Your task to perform on an android device: Add "logitech g pro" to the cart on costco, then select checkout. Image 0: 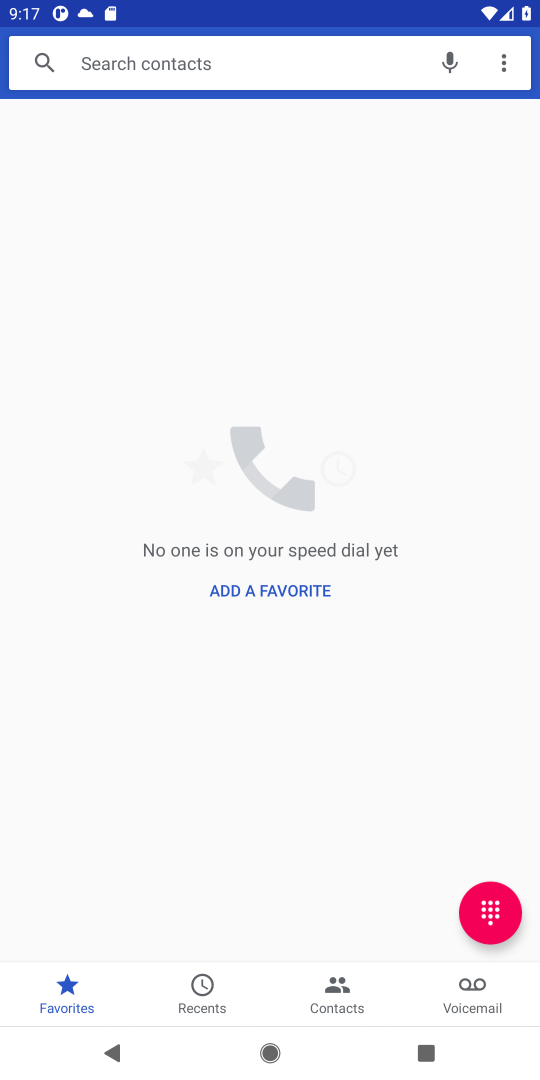
Step 0: press home button
Your task to perform on an android device: Add "logitech g pro" to the cart on costco, then select checkout. Image 1: 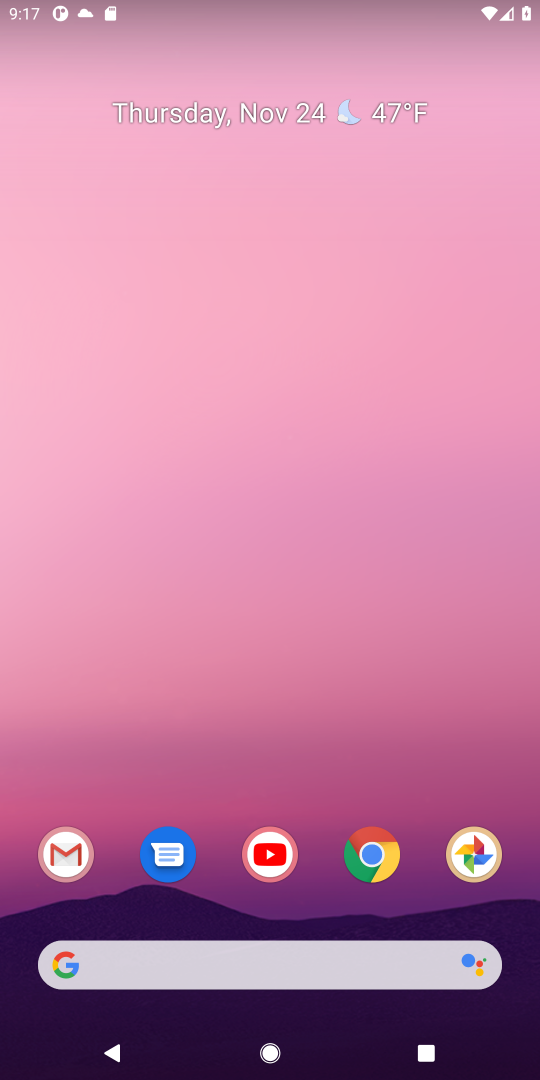
Step 1: click (373, 863)
Your task to perform on an android device: Add "logitech g pro" to the cart on costco, then select checkout. Image 2: 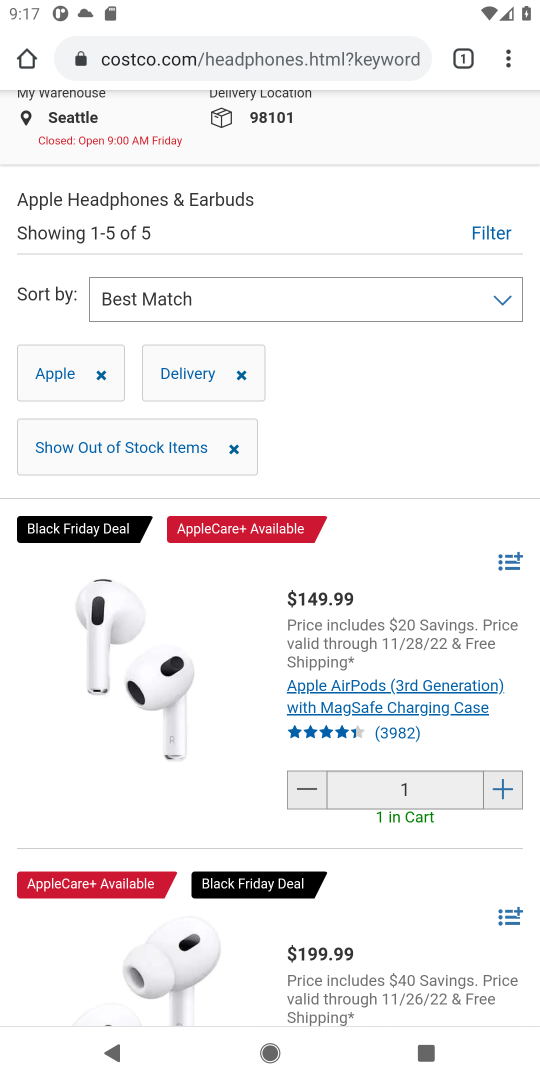
Step 2: drag from (374, 248) to (369, 608)
Your task to perform on an android device: Add "logitech g pro" to the cart on costco, then select checkout. Image 3: 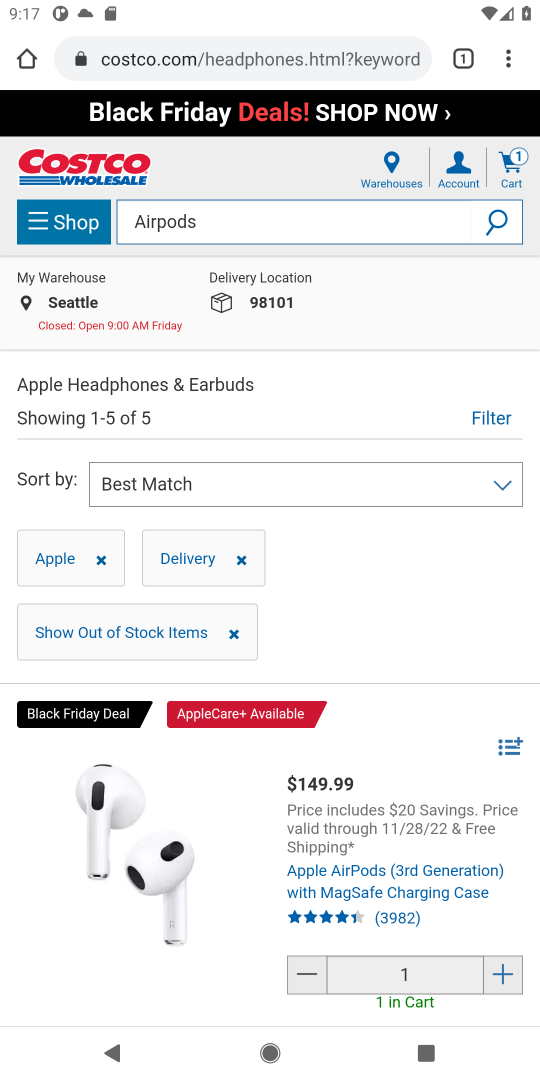
Step 3: click (229, 221)
Your task to perform on an android device: Add "logitech g pro" to the cart on costco, then select checkout. Image 4: 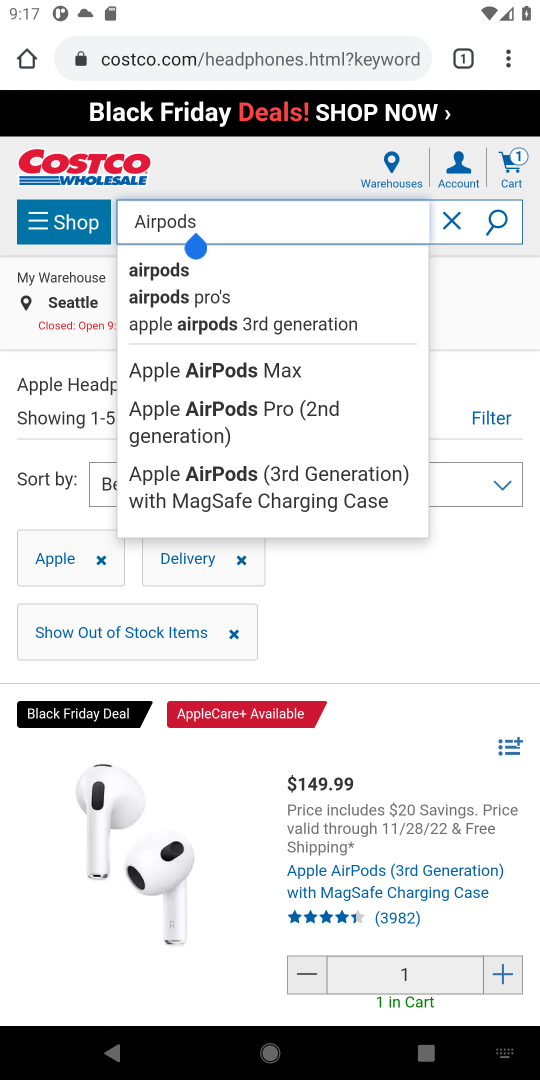
Step 4: click (458, 218)
Your task to perform on an android device: Add "logitech g pro" to the cart on costco, then select checkout. Image 5: 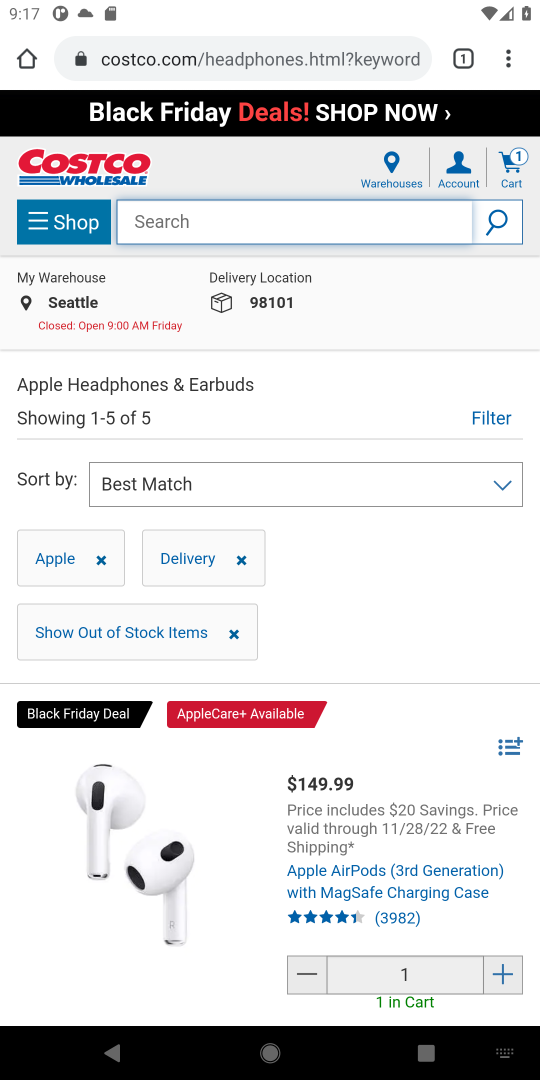
Step 5: type "logitech g pro"
Your task to perform on an android device: Add "logitech g pro" to the cart on costco, then select checkout. Image 6: 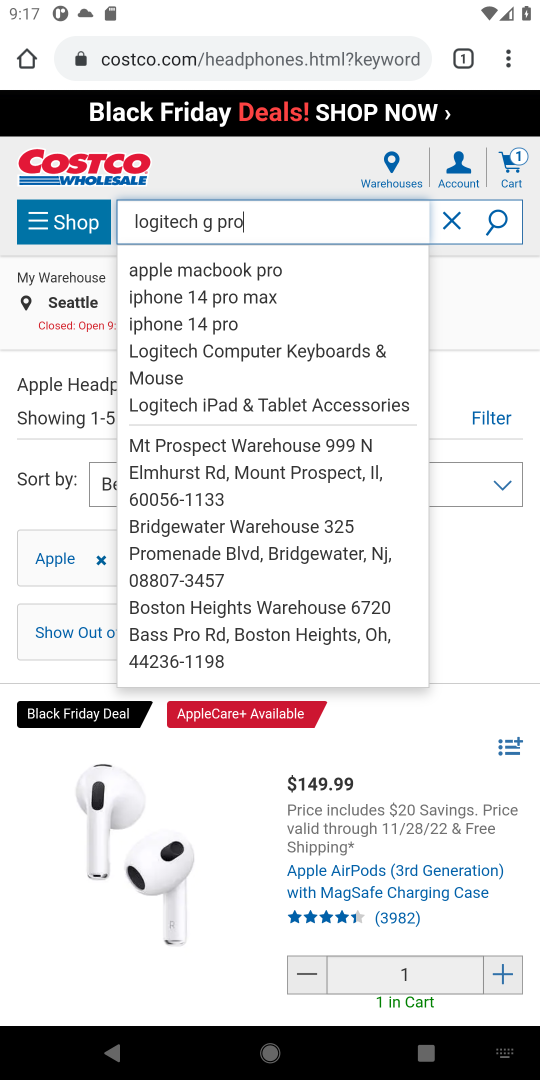
Step 6: click (497, 227)
Your task to perform on an android device: Add "logitech g pro" to the cart on costco, then select checkout. Image 7: 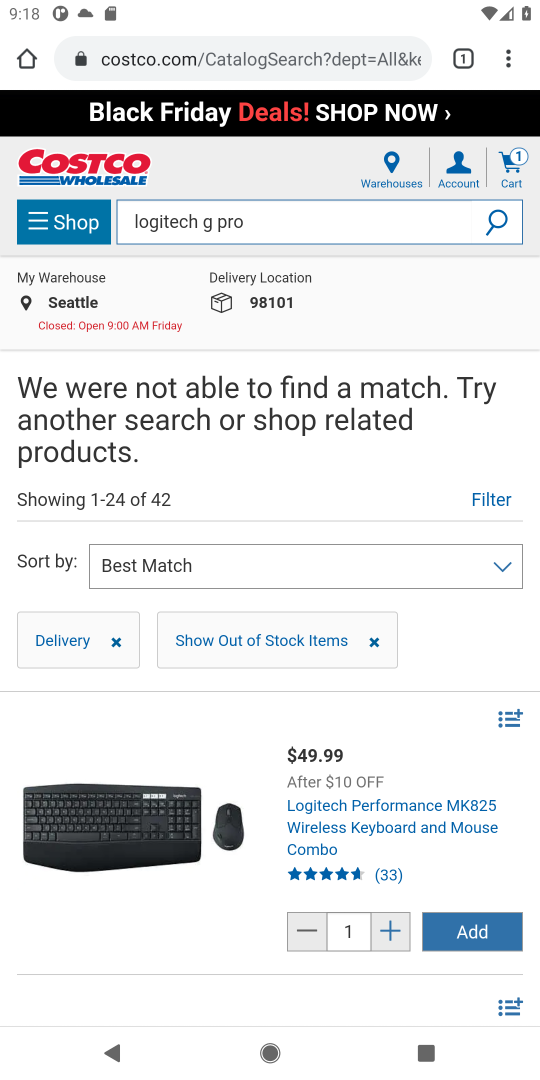
Step 7: task complete